Your task to perform on an android device: install app "DoorDash - Dasher" Image 0: 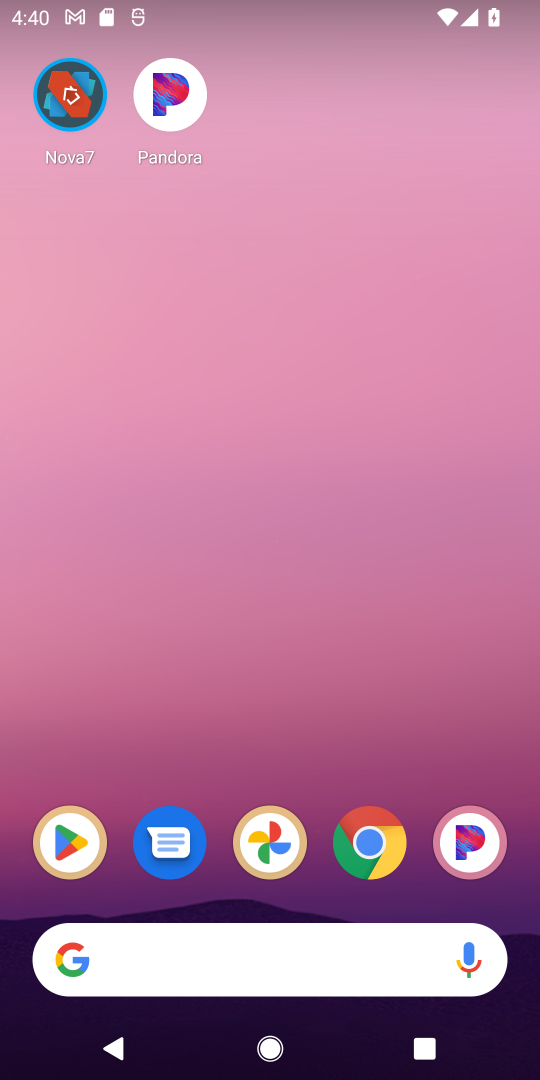
Step 0: drag from (319, 759) to (229, 363)
Your task to perform on an android device: install app "DoorDash - Dasher" Image 1: 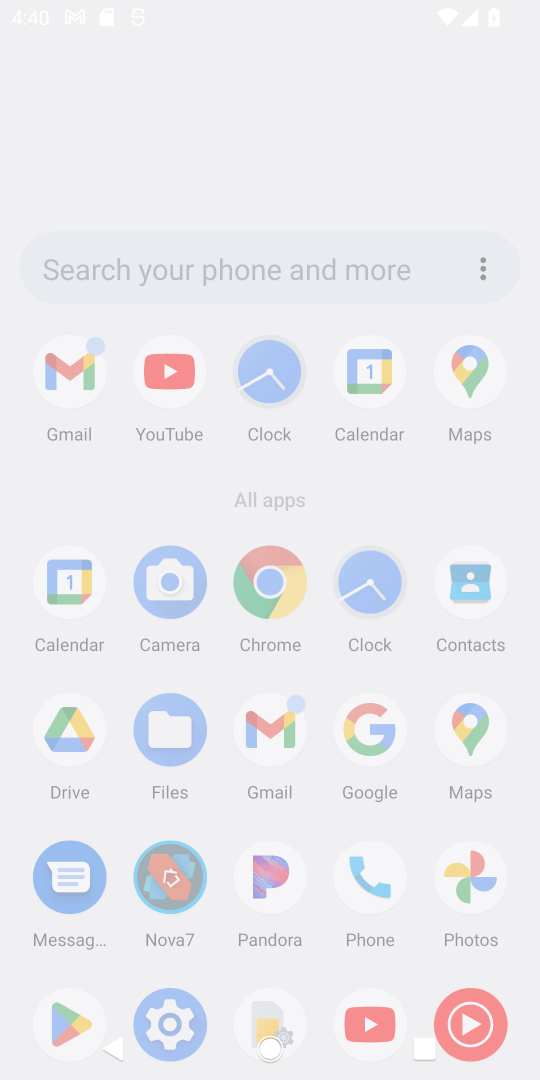
Step 1: drag from (419, 761) to (450, 534)
Your task to perform on an android device: install app "DoorDash - Dasher" Image 2: 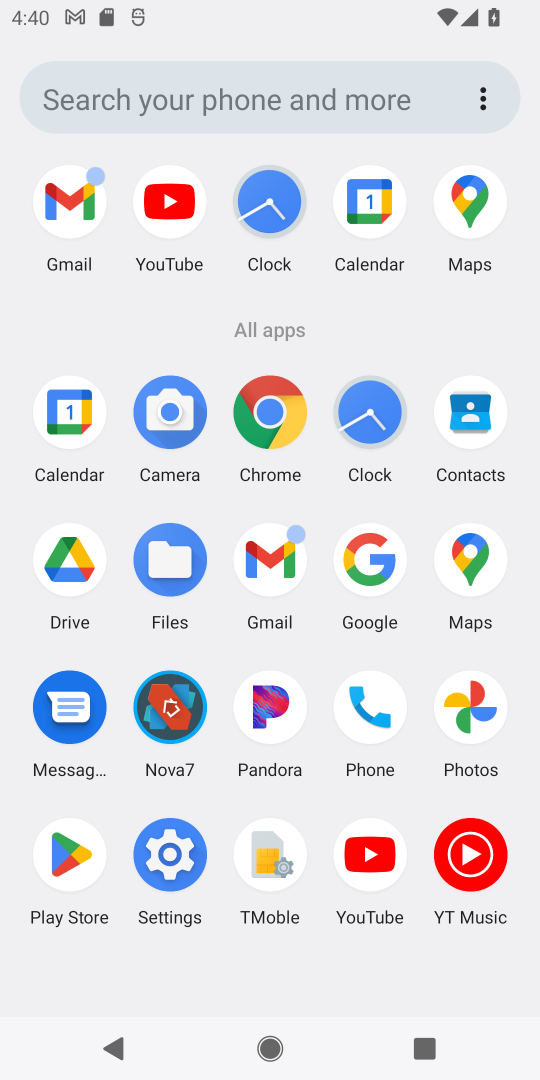
Step 2: click (59, 838)
Your task to perform on an android device: install app "DoorDash - Dasher" Image 3: 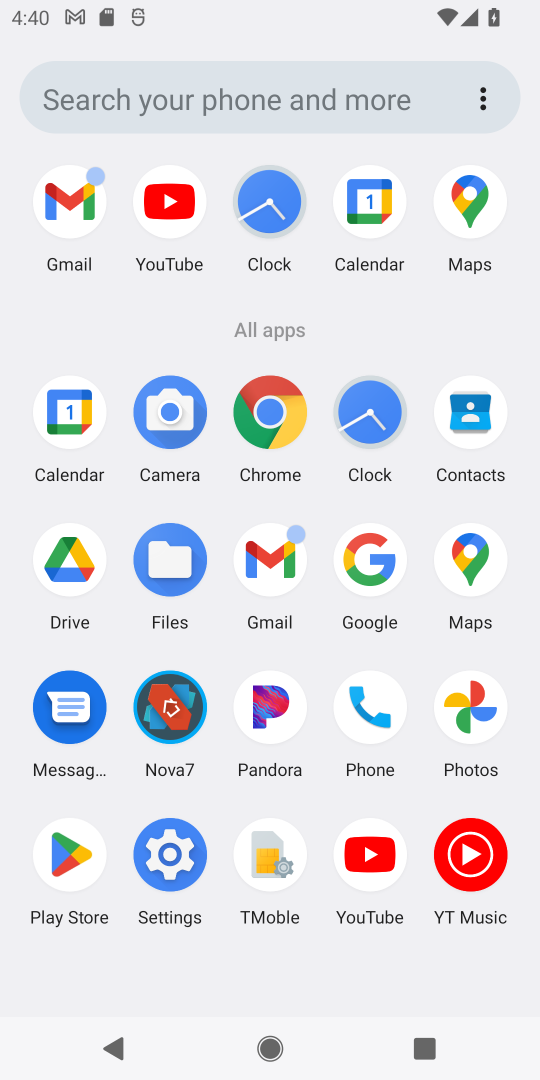
Step 3: click (55, 845)
Your task to perform on an android device: install app "DoorDash - Dasher" Image 4: 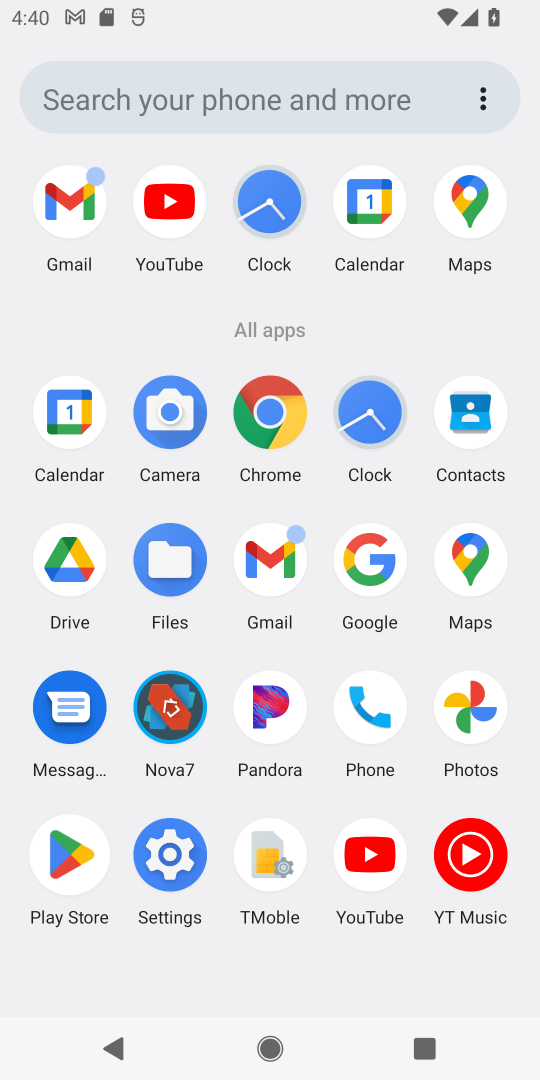
Step 4: click (58, 848)
Your task to perform on an android device: install app "DoorDash - Dasher" Image 5: 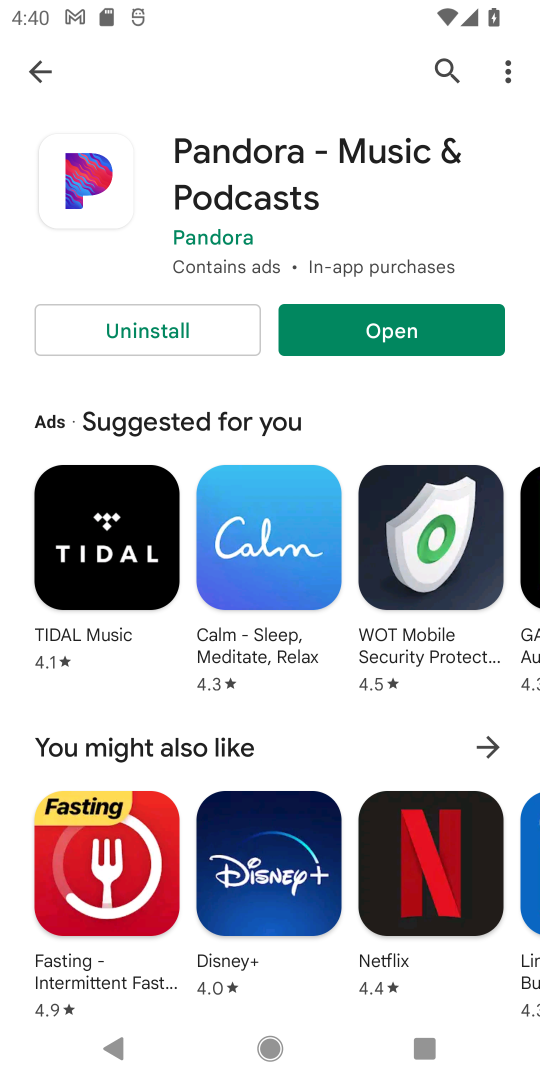
Step 5: click (24, 81)
Your task to perform on an android device: install app "DoorDash - Dasher" Image 6: 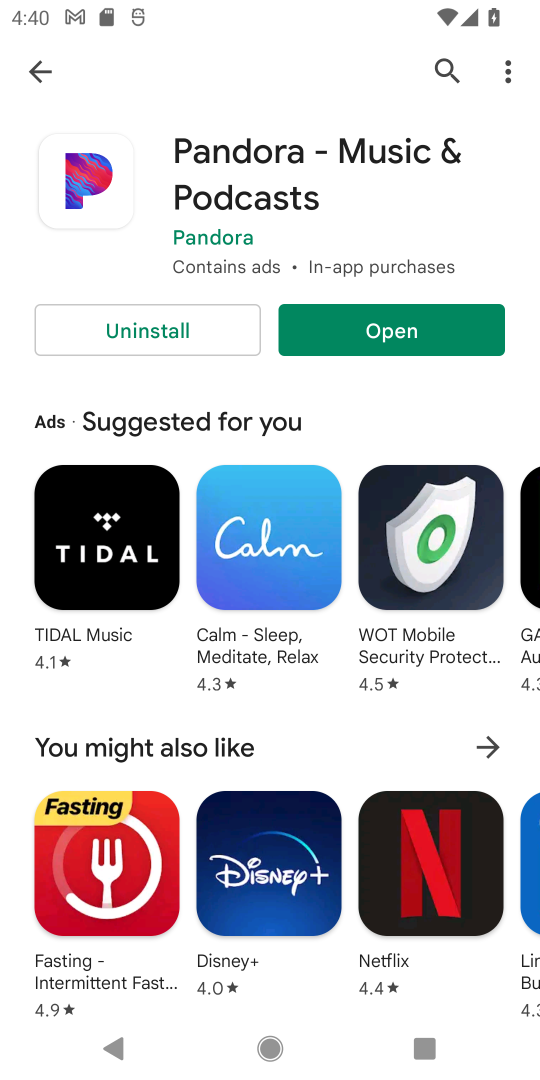
Step 6: click (22, 81)
Your task to perform on an android device: install app "DoorDash - Dasher" Image 7: 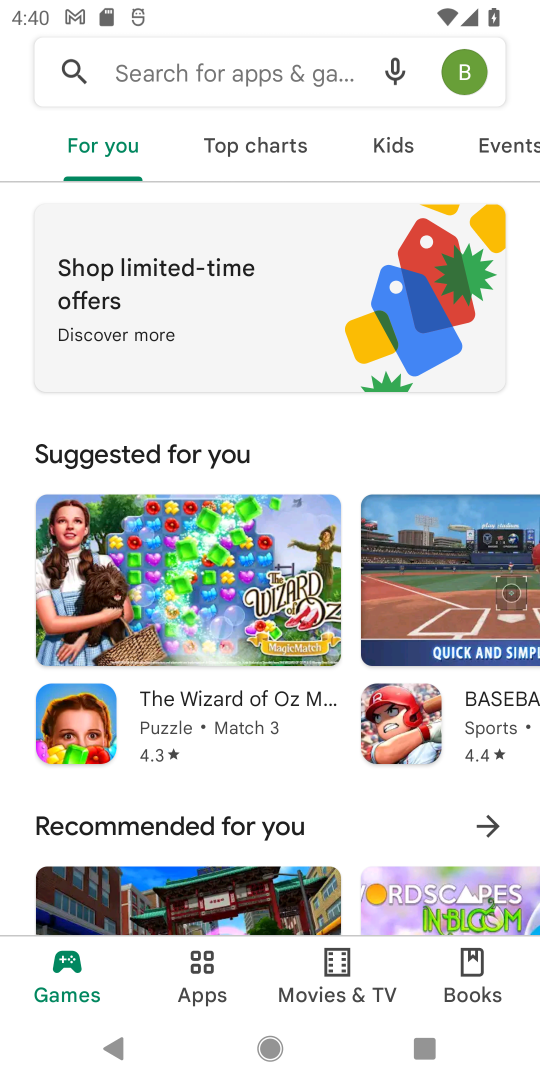
Step 7: click (132, 63)
Your task to perform on an android device: install app "DoorDash - Dasher" Image 8: 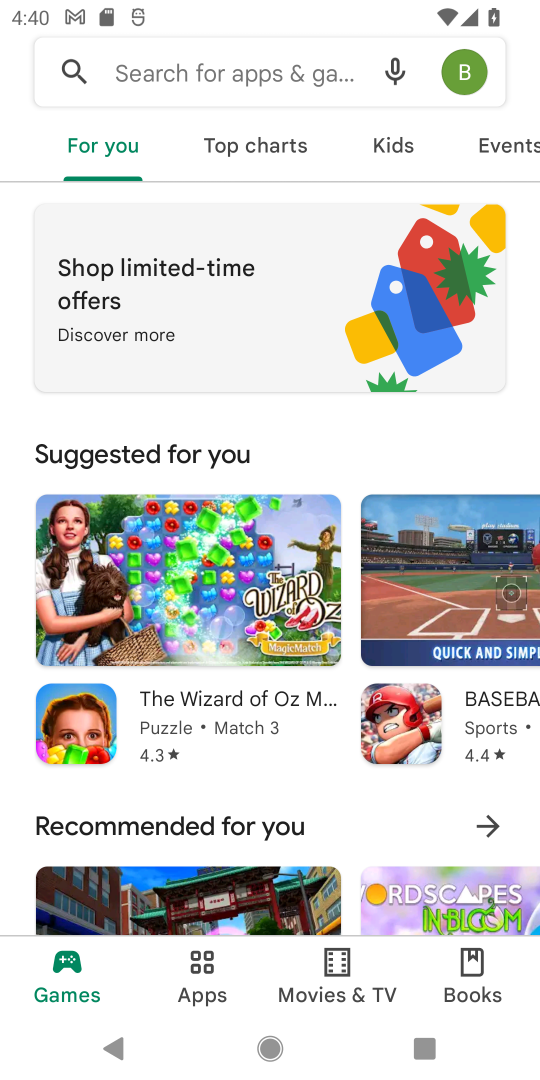
Step 8: click (131, 66)
Your task to perform on an android device: install app "DoorDash - Dasher" Image 9: 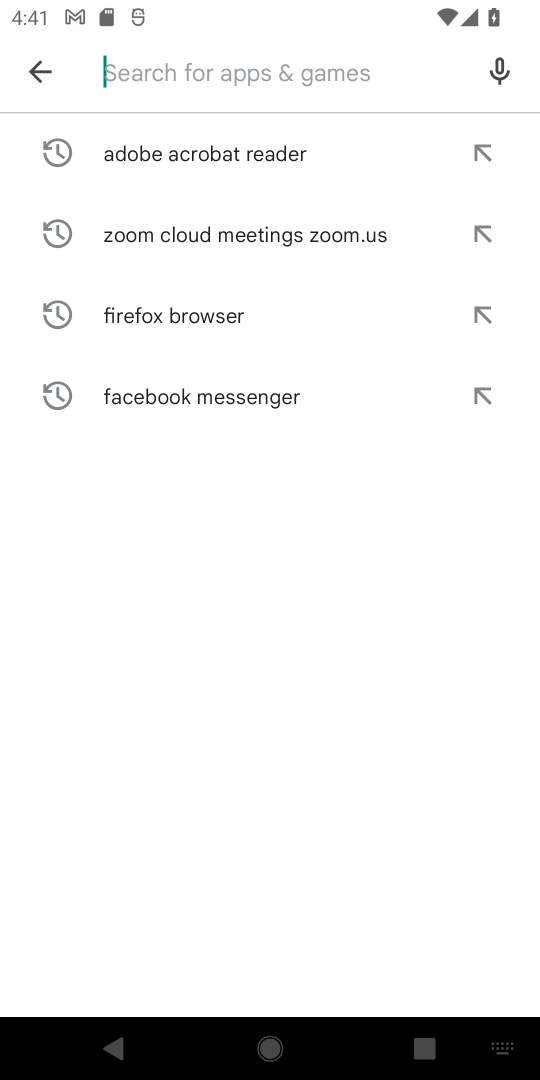
Step 9: type "DoorDash - Dasher"
Your task to perform on an android device: install app "DoorDash - Dasher" Image 10: 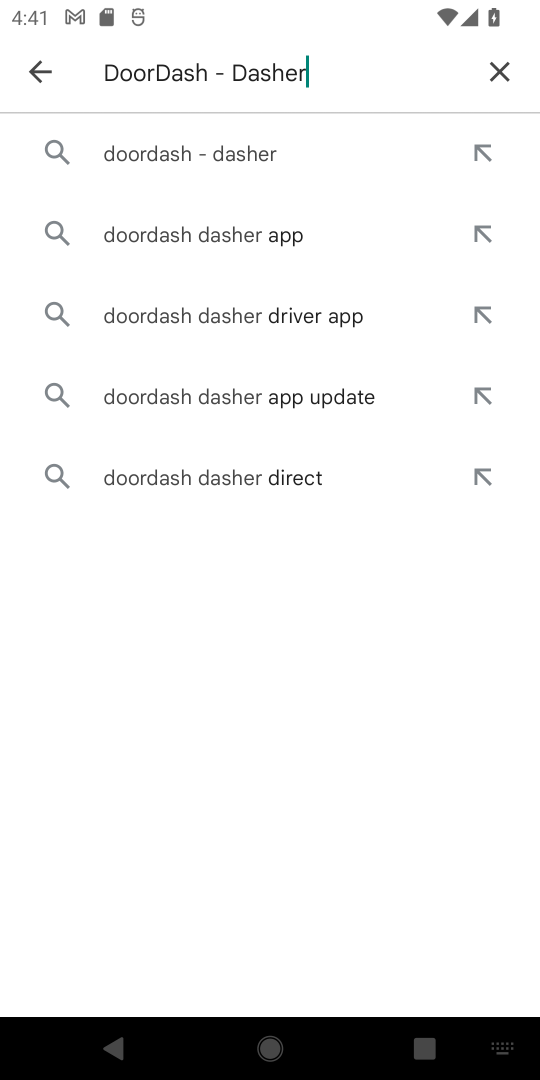
Step 10: click (183, 154)
Your task to perform on an android device: install app "DoorDash - Dasher" Image 11: 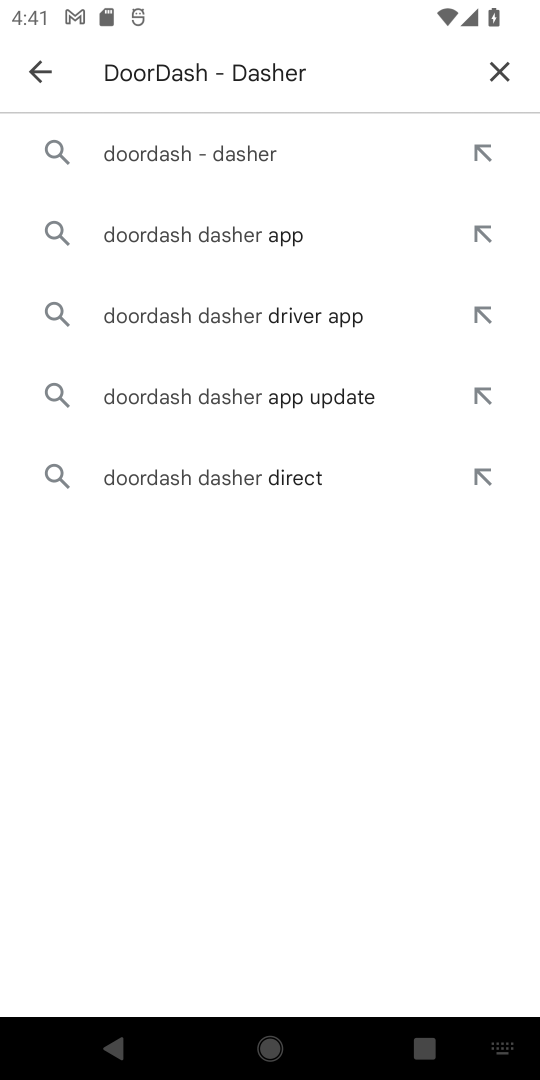
Step 11: click (184, 156)
Your task to perform on an android device: install app "DoorDash - Dasher" Image 12: 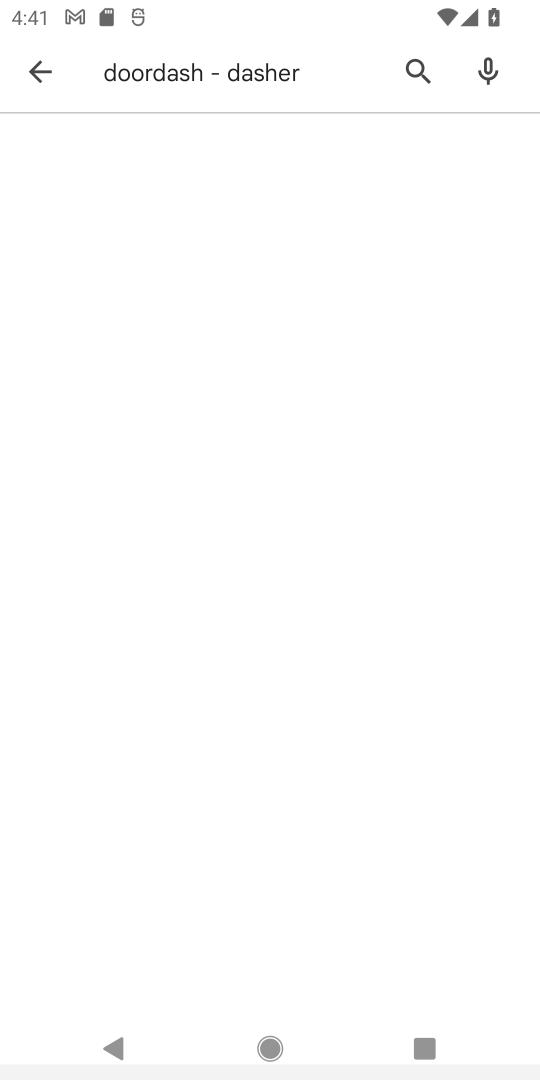
Step 12: click (196, 152)
Your task to perform on an android device: install app "DoorDash - Dasher" Image 13: 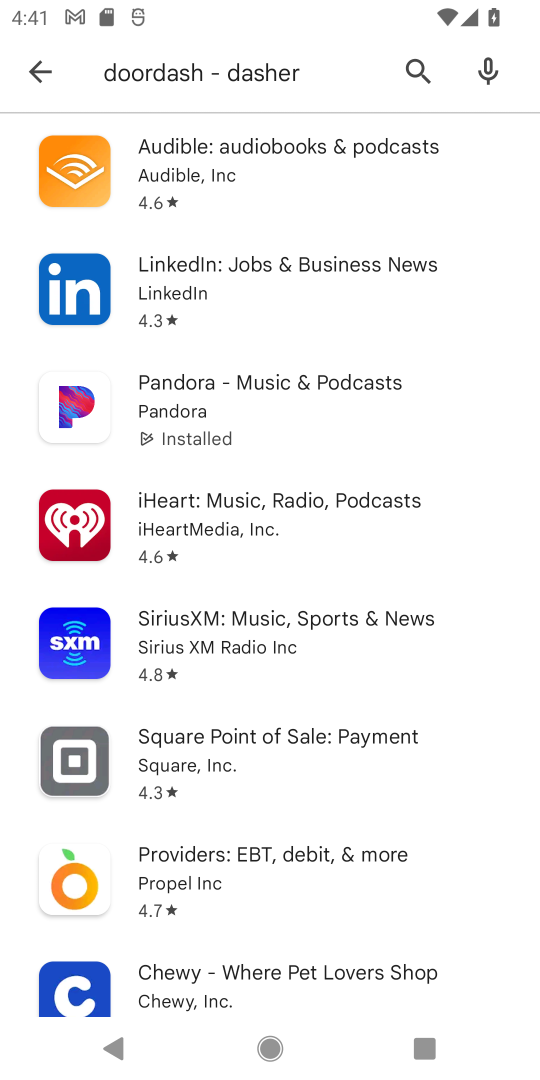
Step 13: task complete